Your task to perform on an android device: open device folders in google photos Image 0: 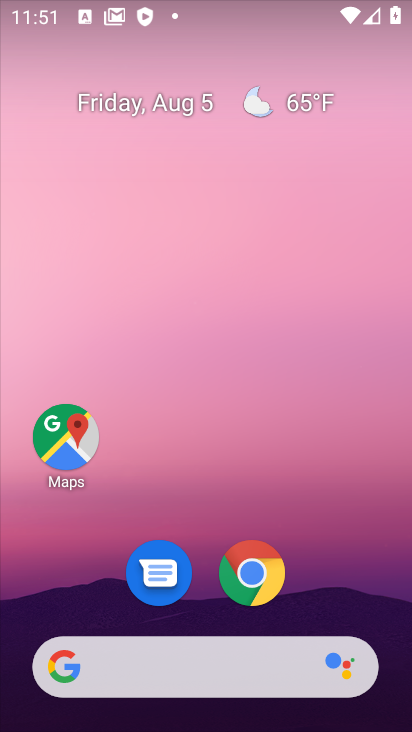
Step 0: press home button
Your task to perform on an android device: open device folders in google photos Image 1: 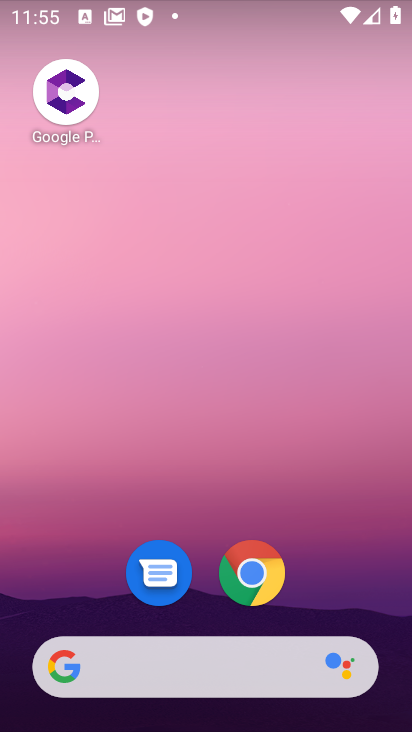
Step 1: drag from (223, 515) to (235, 256)
Your task to perform on an android device: open device folders in google photos Image 2: 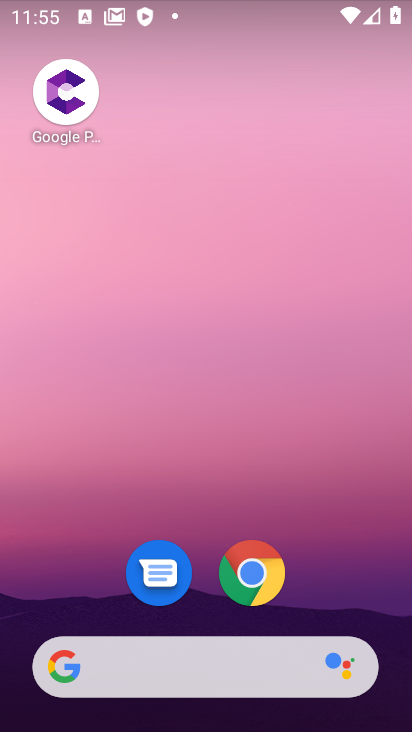
Step 2: drag from (205, 501) to (217, 5)
Your task to perform on an android device: open device folders in google photos Image 3: 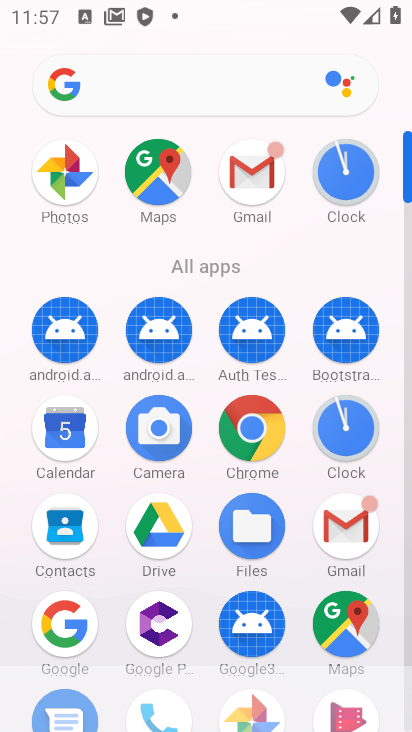
Step 3: drag from (209, 577) to (217, 267)
Your task to perform on an android device: open device folders in google photos Image 4: 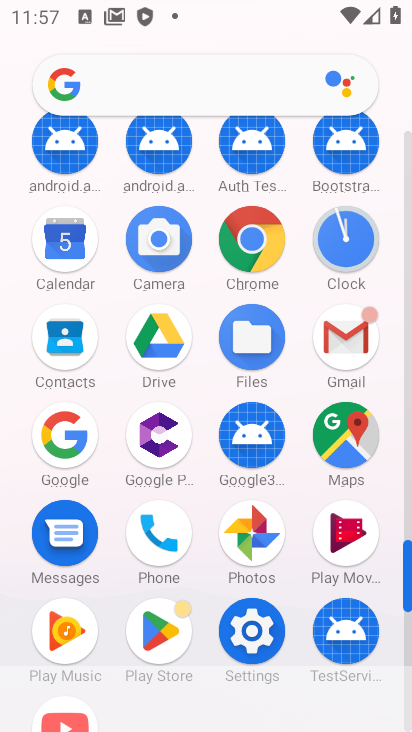
Step 4: click (251, 539)
Your task to perform on an android device: open device folders in google photos Image 5: 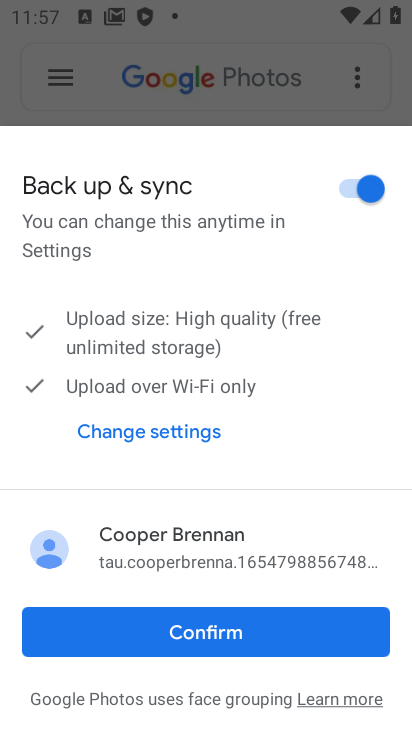
Step 5: click (172, 635)
Your task to perform on an android device: open device folders in google photos Image 6: 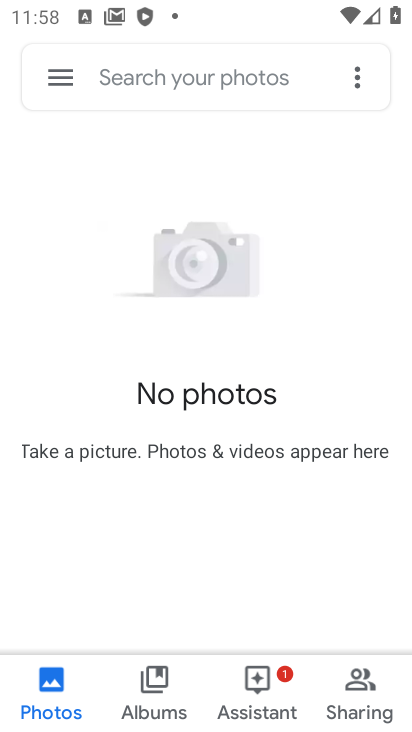
Step 6: task complete